Your task to perform on an android device: open app "Microsoft Outlook" Image 0: 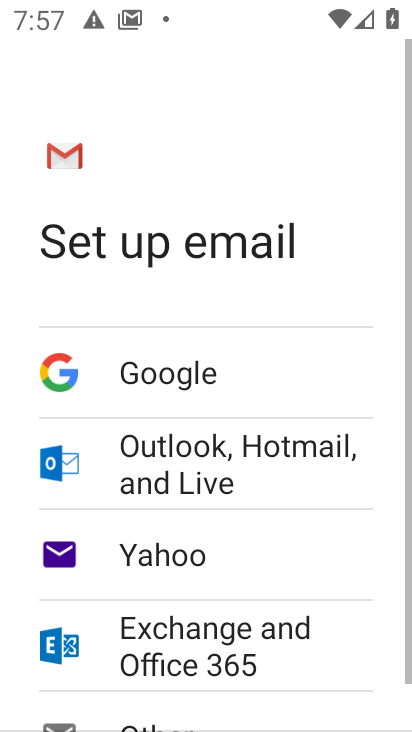
Step 0: press home button
Your task to perform on an android device: open app "Microsoft Outlook" Image 1: 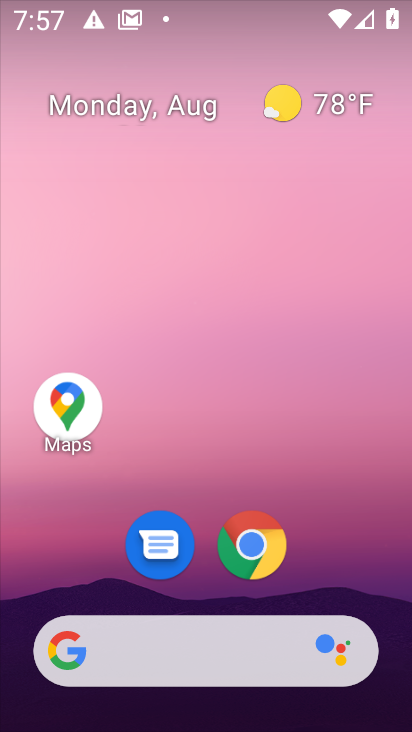
Step 1: drag from (363, 548) to (395, 144)
Your task to perform on an android device: open app "Microsoft Outlook" Image 2: 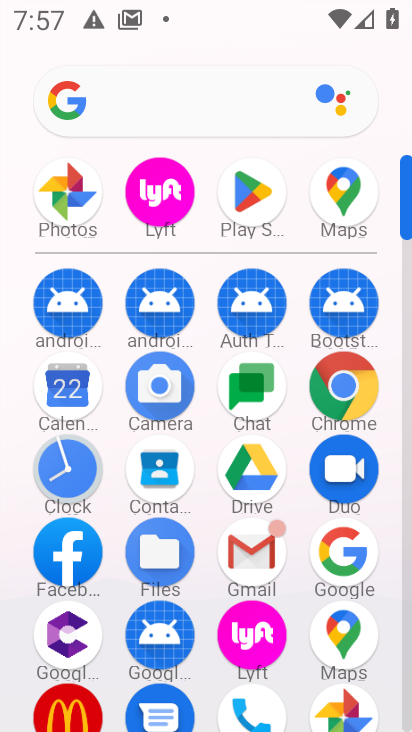
Step 2: click (251, 189)
Your task to perform on an android device: open app "Microsoft Outlook" Image 3: 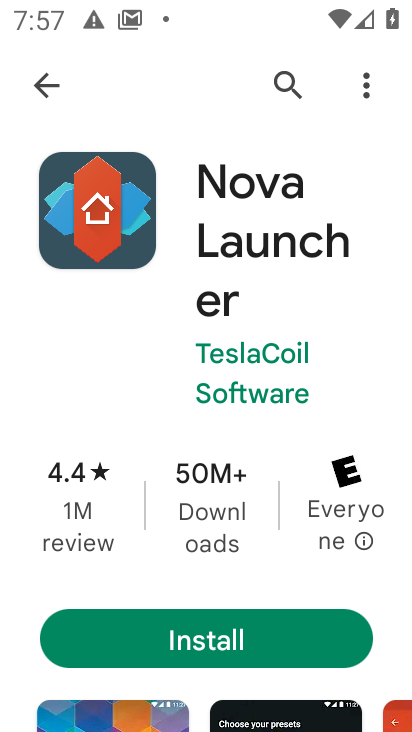
Step 3: press back button
Your task to perform on an android device: open app "Microsoft Outlook" Image 4: 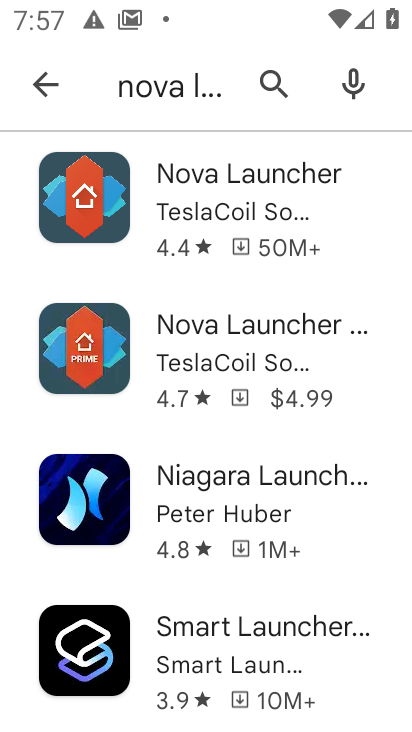
Step 4: press back button
Your task to perform on an android device: open app "Microsoft Outlook" Image 5: 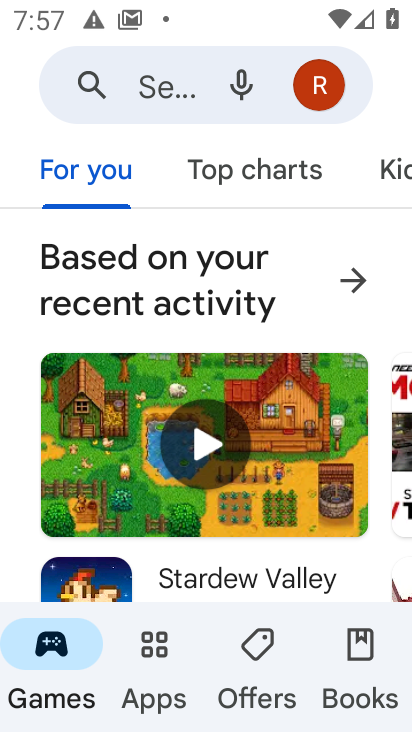
Step 5: click (156, 90)
Your task to perform on an android device: open app "Microsoft Outlook" Image 6: 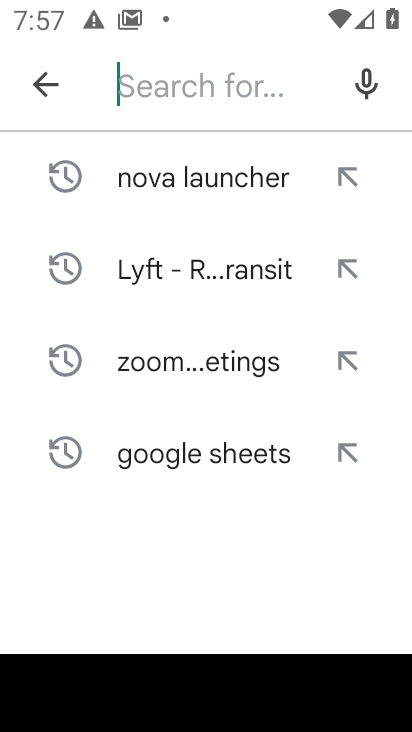
Step 6: type "microsoft outlook"
Your task to perform on an android device: open app "Microsoft Outlook" Image 7: 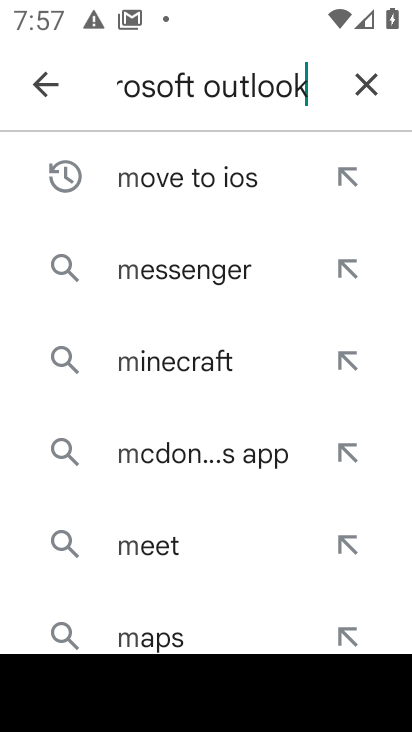
Step 7: press enter
Your task to perform on an android device: open app "Microsoft Outlook" Image 8: 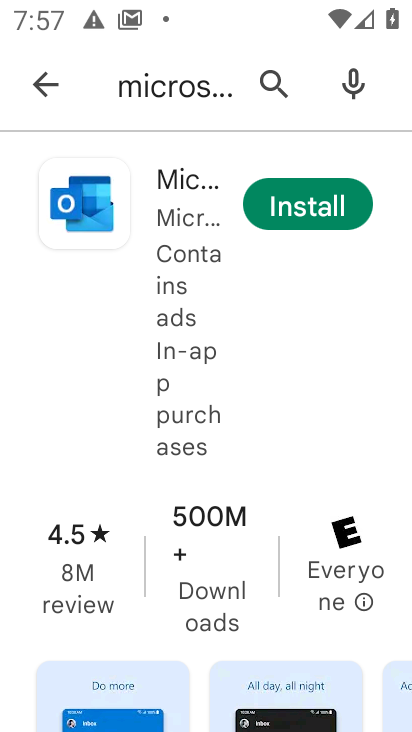
Step 8: task complete